Your task to perform on an android device: create a new album in the google photos Image 0: 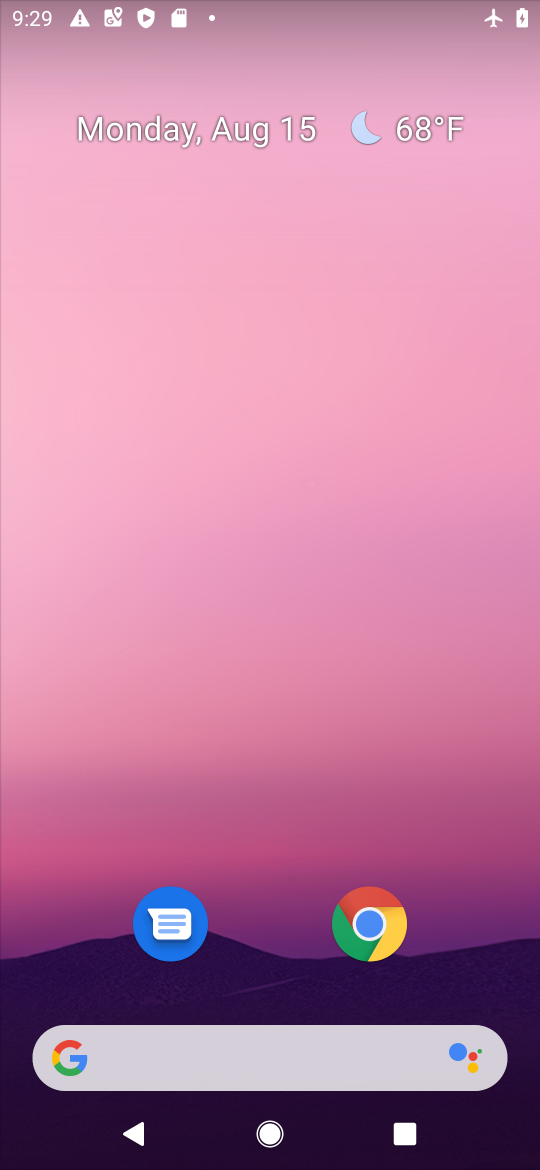
Step 0: drag from (512, 999) to (397, 220)
Your task to perform on an android device: create a new album in the google photos Image 1: 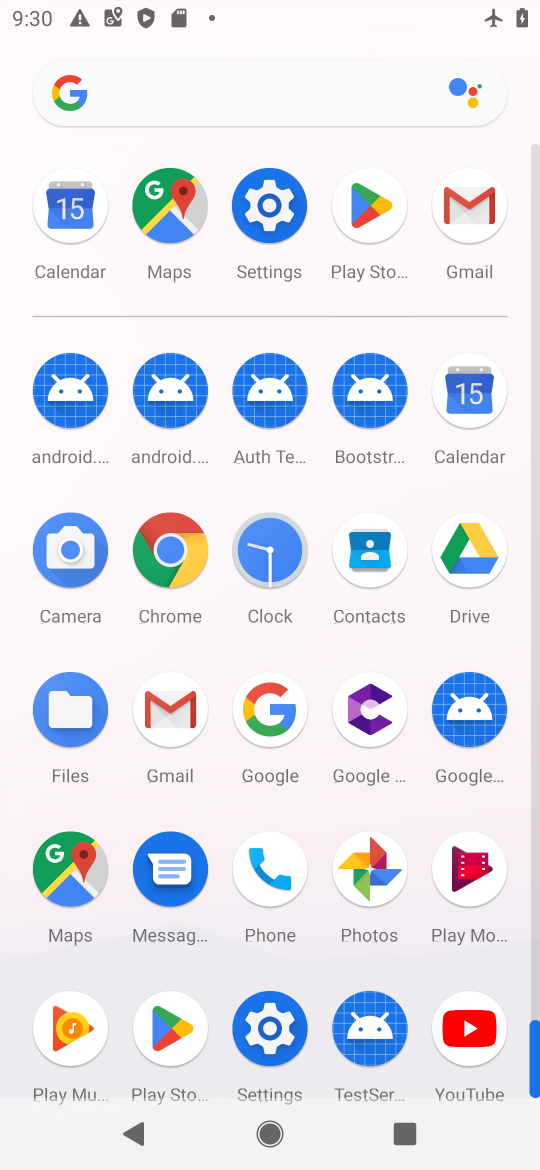
Step 1: click (371, 876)
Your task to perform on an android device: create a new album in the google photos Image 2: 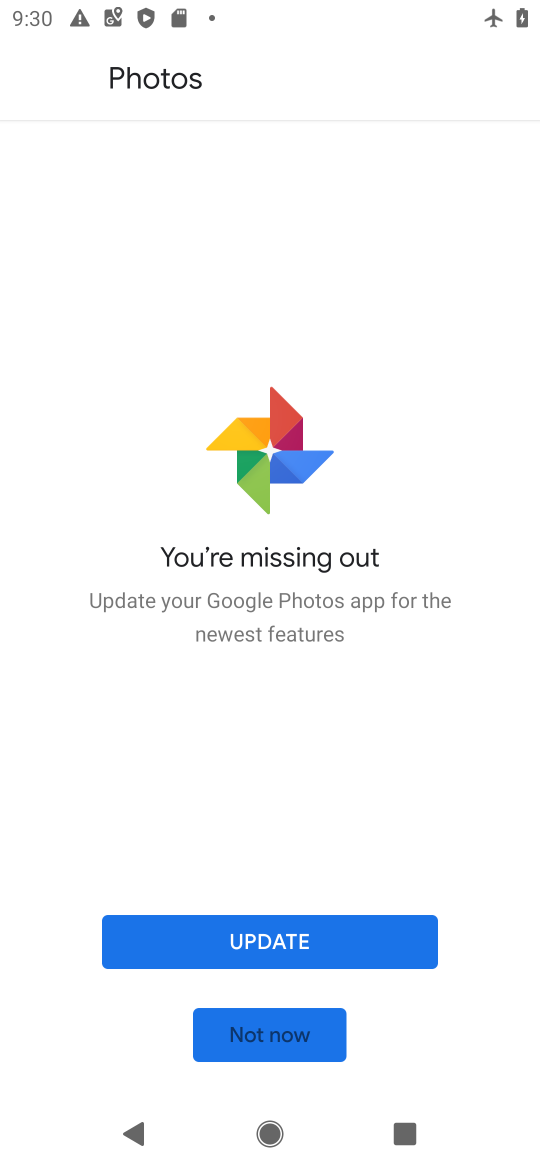
Step 2: click (254, 940)
Your task to perform on an android device: create a new album in the google photos Image 3: 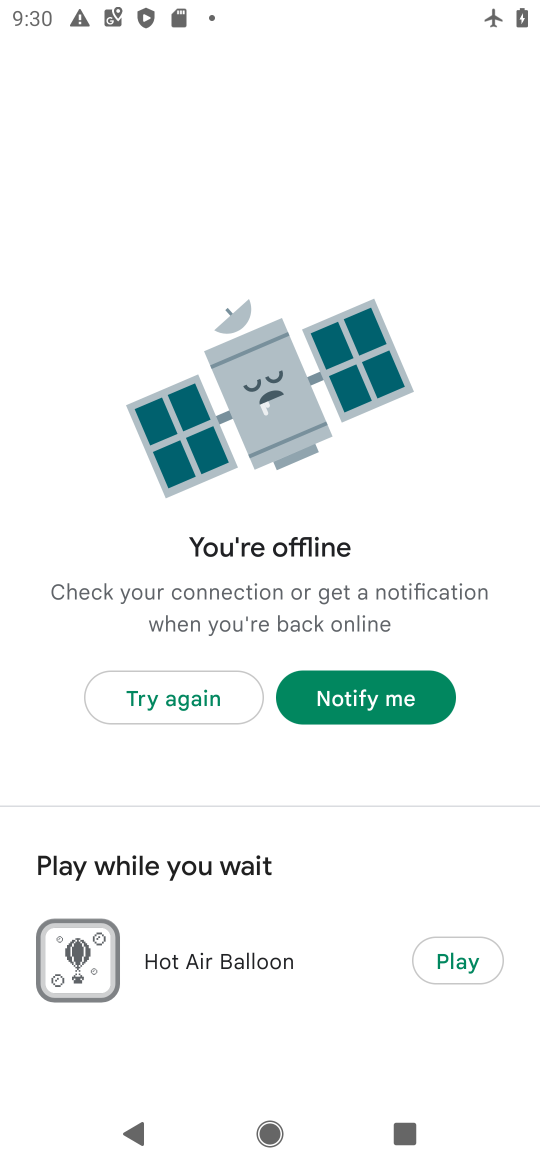
Step 3: click (190, 695)
Your task to perform on an android device: create a new album in the google photos Image 4: 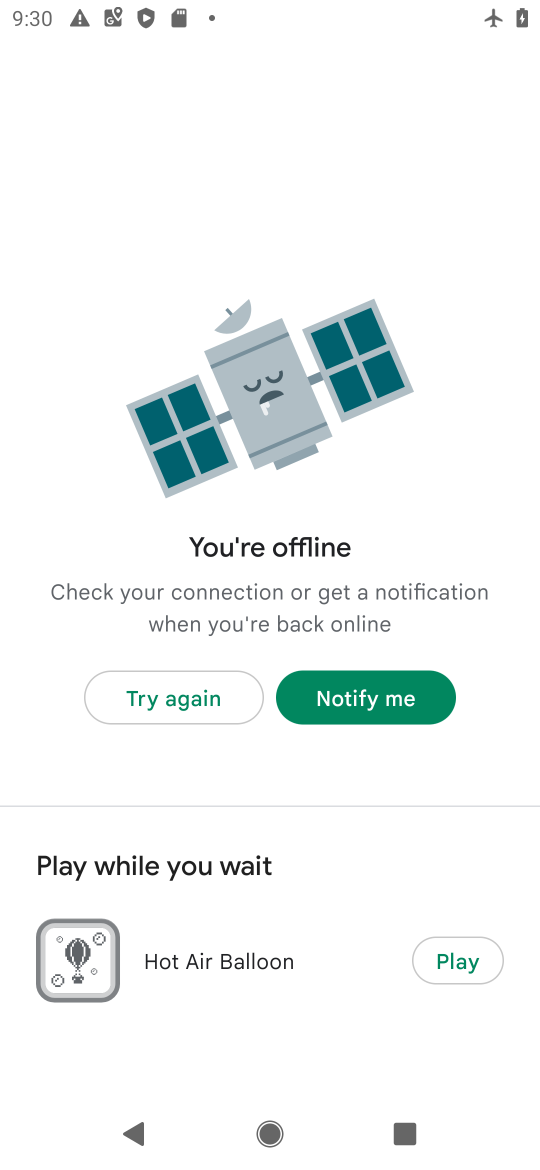
Step 4: click (179, 699)
Your task to perform on an android device: create a new album in the google photos Image 5: 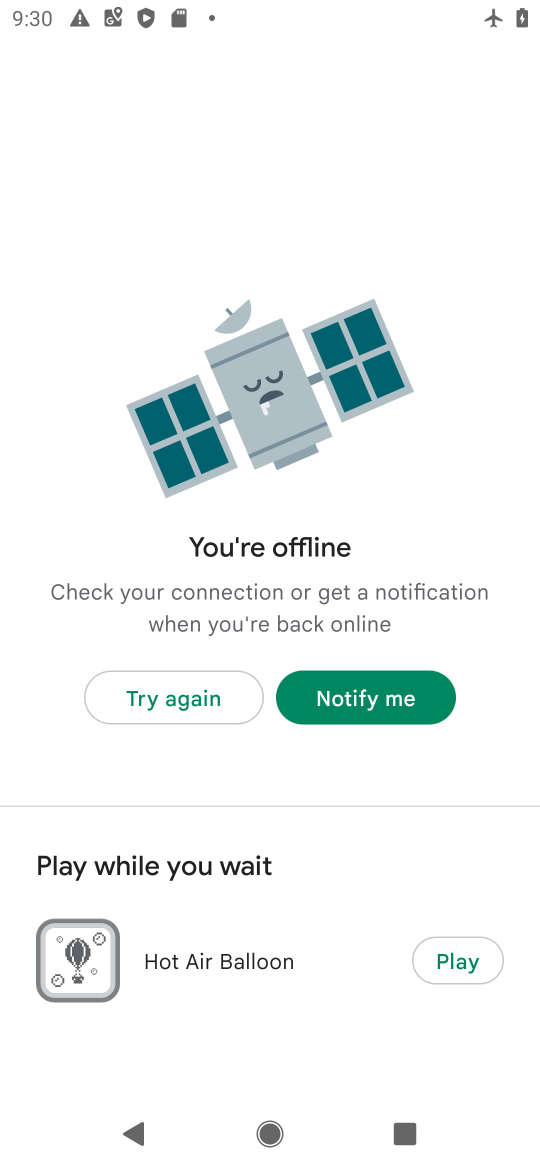
Step 5: click (169, 699)
Your task to perform on an android device: create a new album in the google photos Image 6: 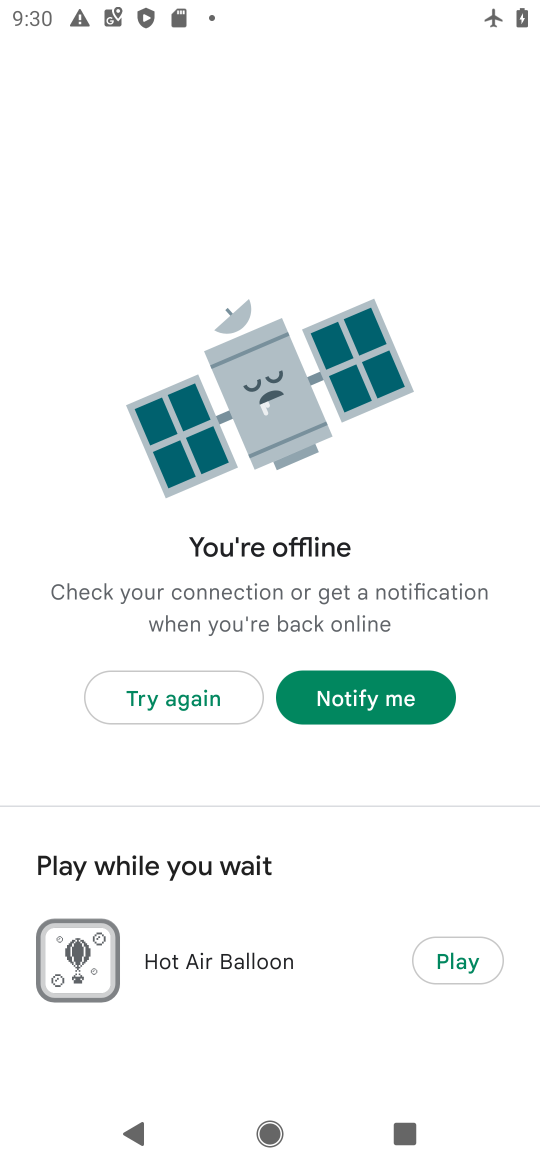
Step 6: click (169, 699)
Your task to perform on an android device: create a new album in the google photos Image 7: 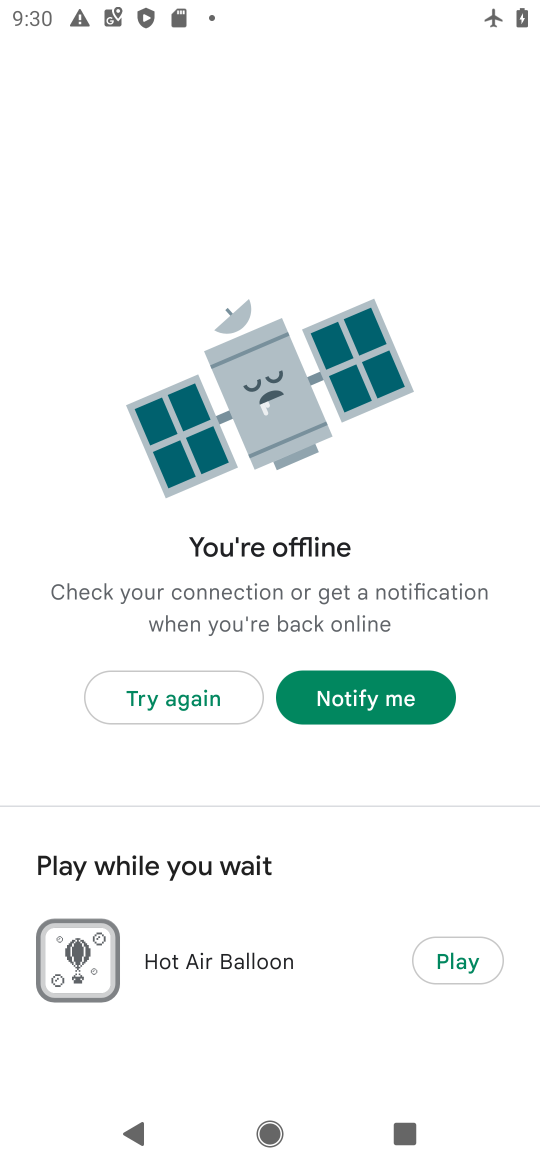
Step 7: click (169, 699)
Your task to perform on an android device: create a new album in the google photos Image 8: 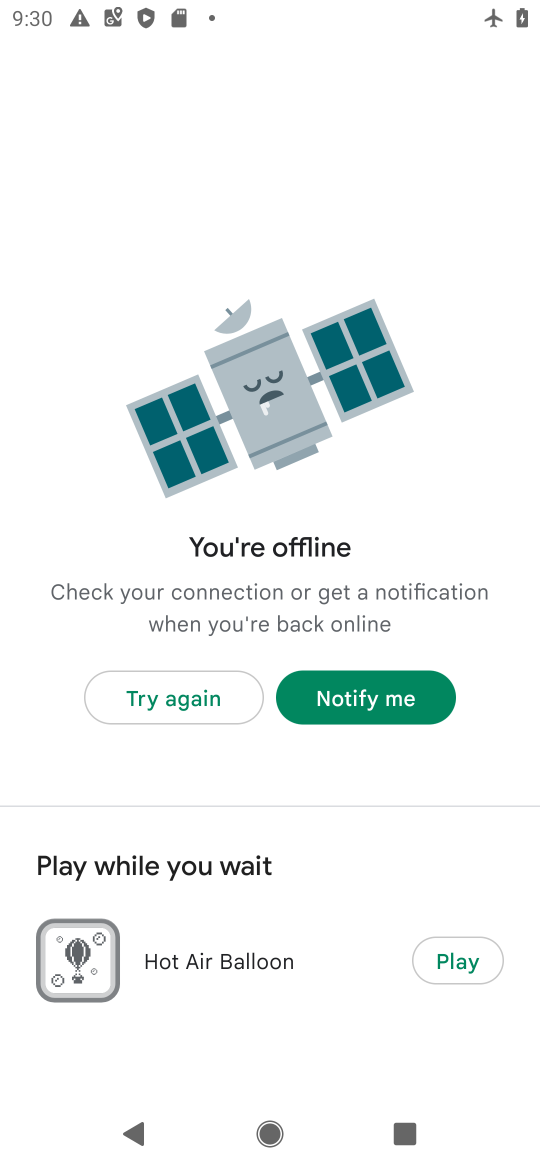
Step 8: click (169, 699)
Your task to perform on an android device: create a new album in the google photos Image 9: 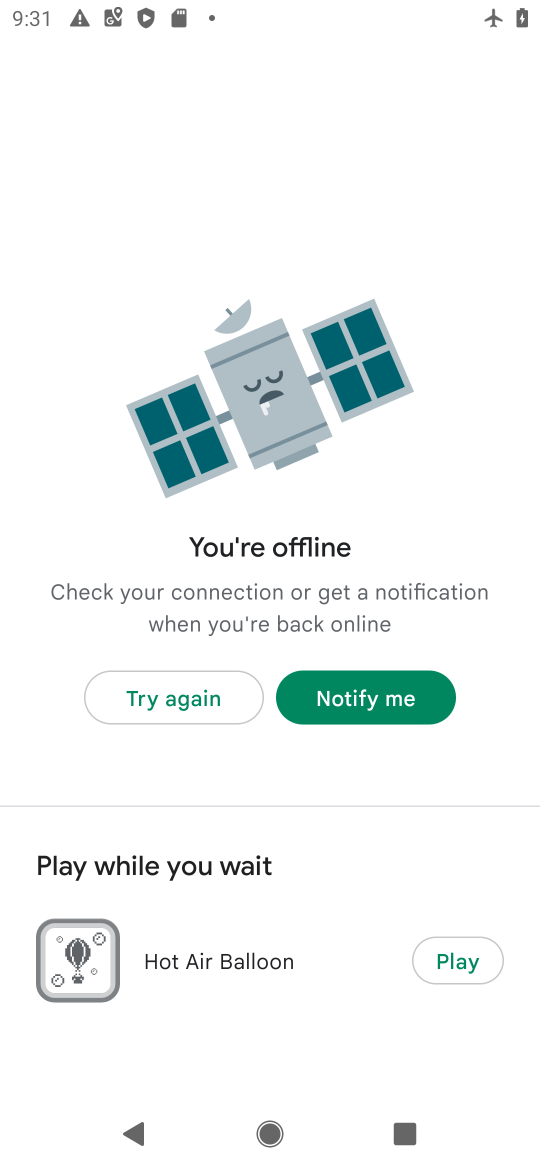
Step 9: click (169, 699)
Your task to perform on an android device: create a new album in the google photos Image 10: 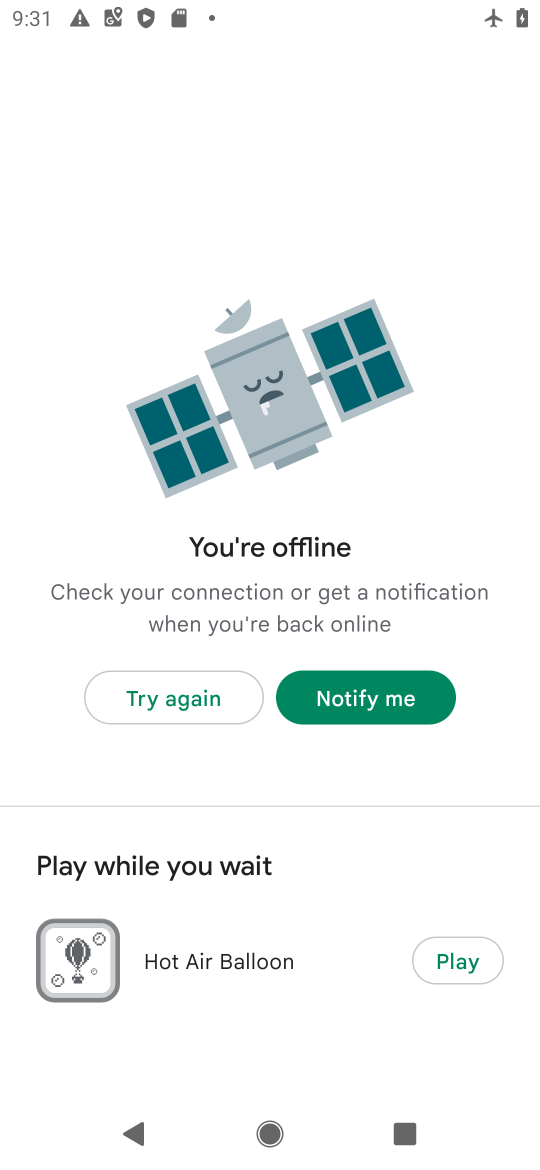
Step 10: task complete